Your task to perform on an android device: open app "Messenger Lite" (install if not already installed) Image 0: 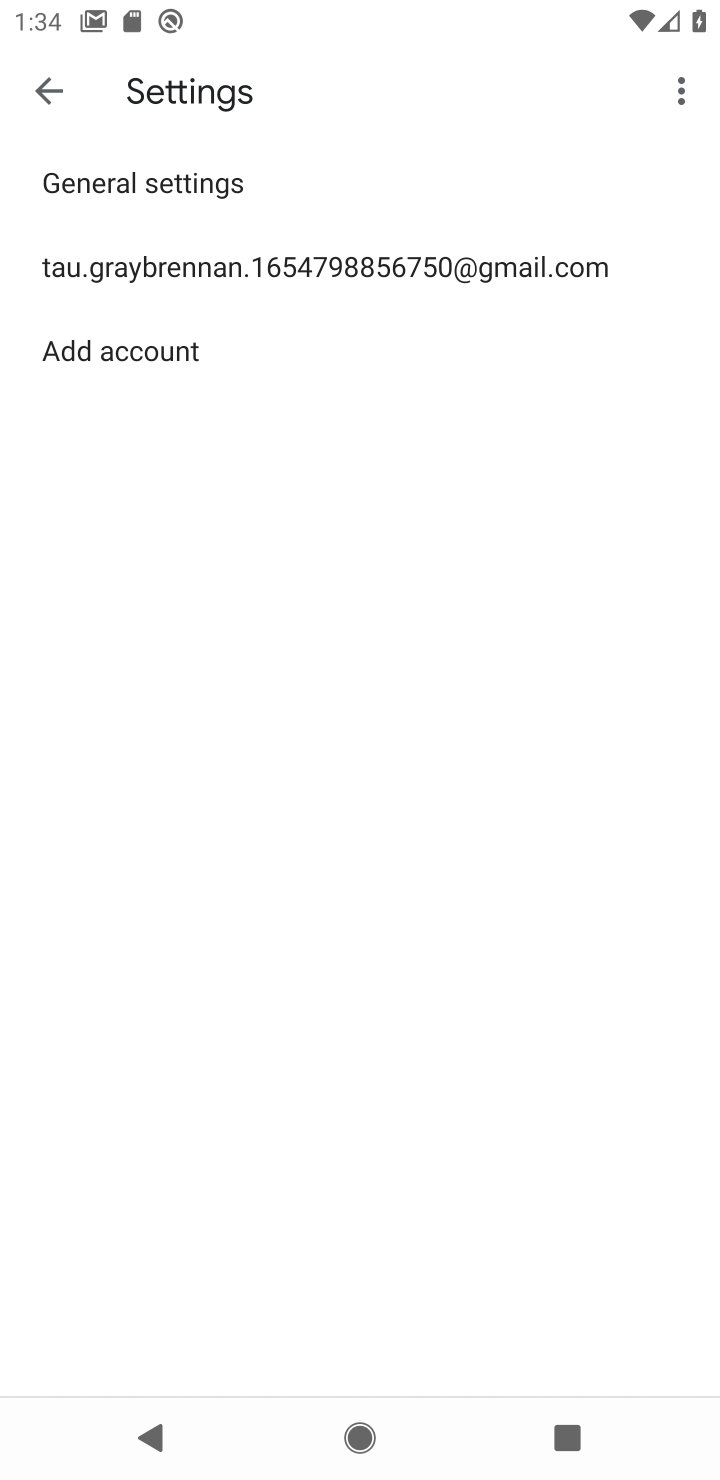
Step 0: press home button
Your task to perform on an android device: open app "Messenger Lite" (install if not already installed) Image 1: 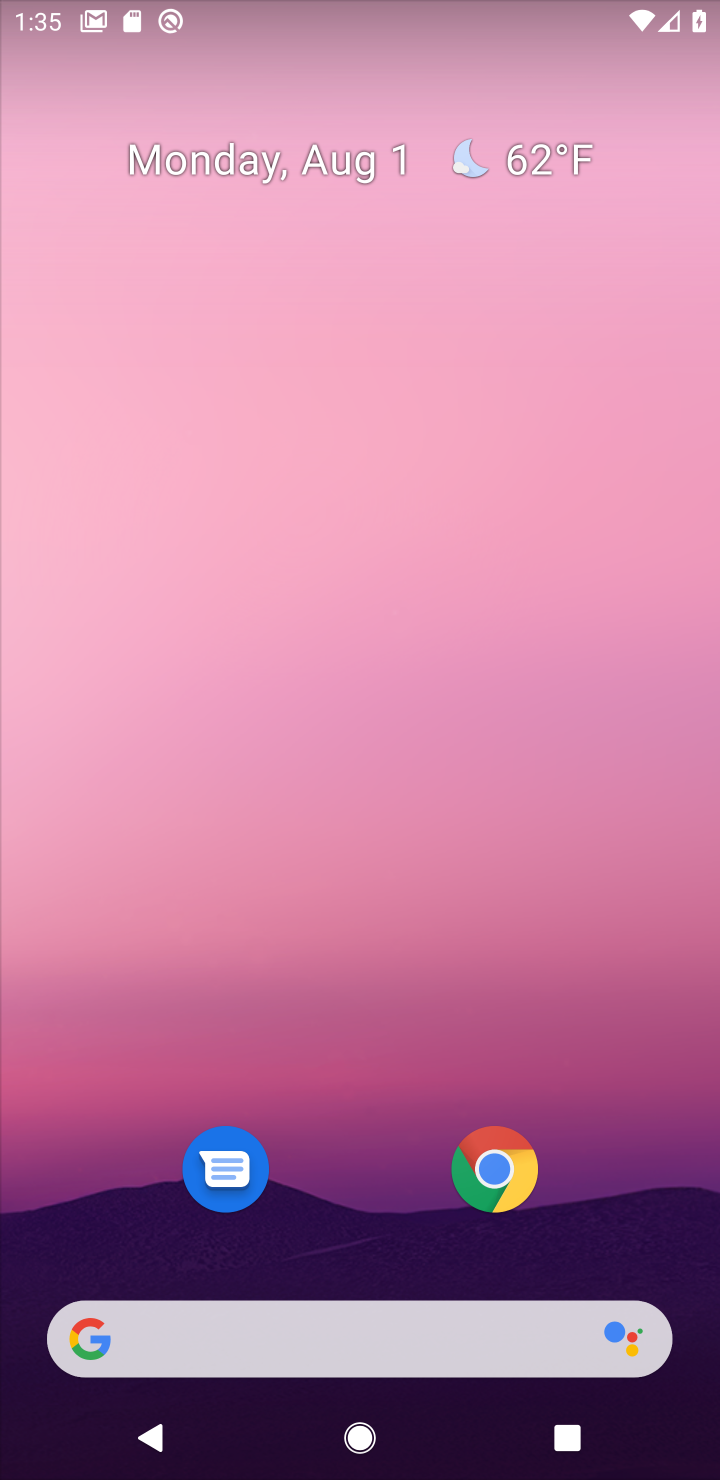
Step 1: drag from (342, 915) to (349, 196)
Your task to perform on an android device: open app "Messenger Lite" (install if not already installed) Image 2: 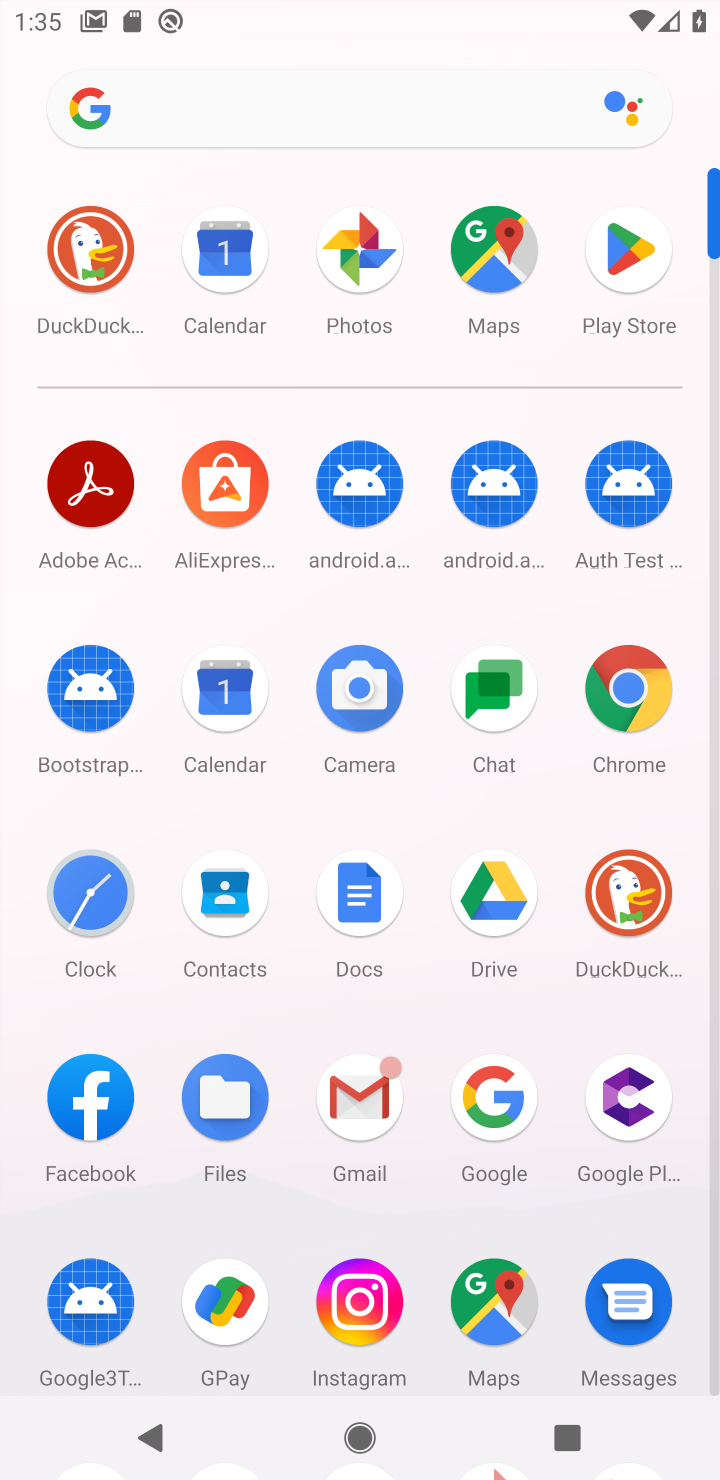
Step 2: click (637, 321)
Your task to perform on an android device: open app "Messenger Lite" (install if not already installed) Image 3: 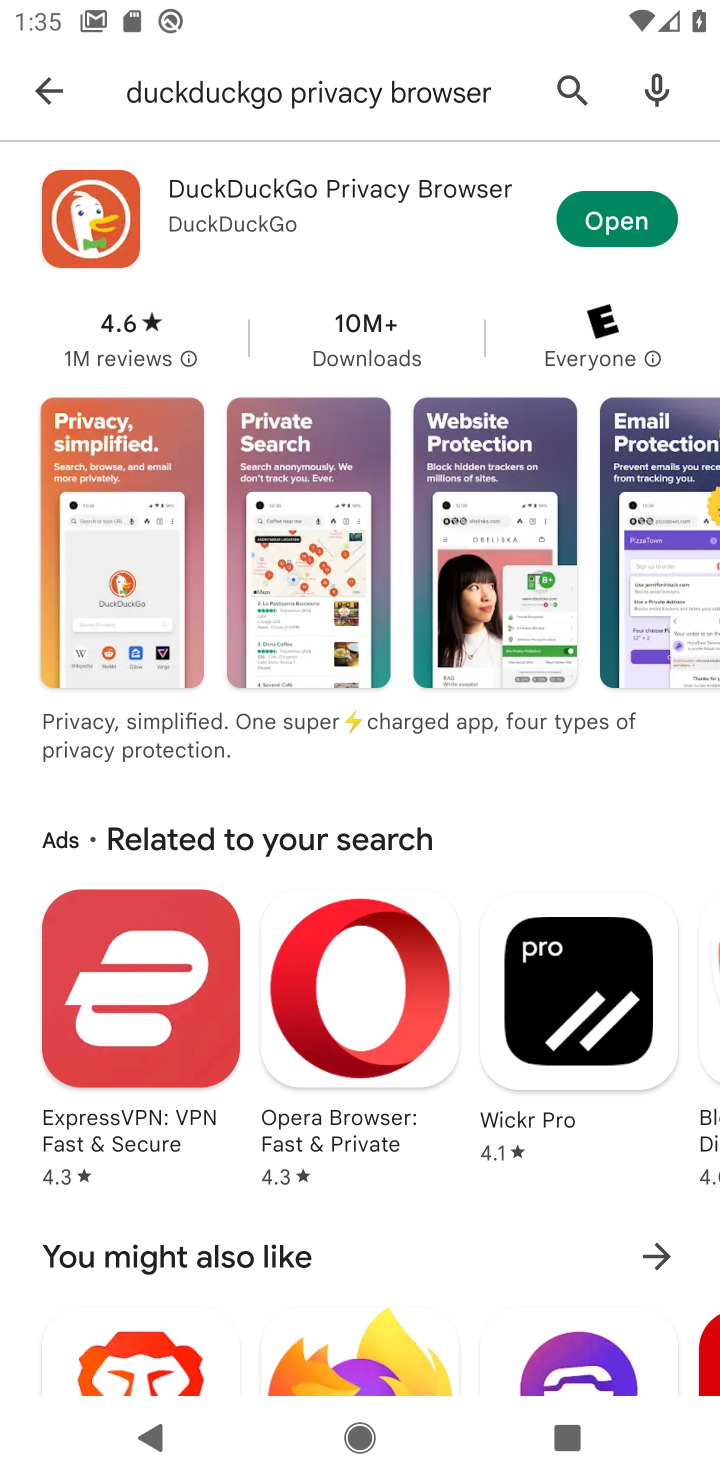
Step 3: click (27, 79)
Your task to perform on an android device: open app "Messenger Lite" (install if not already installed) Image 4: 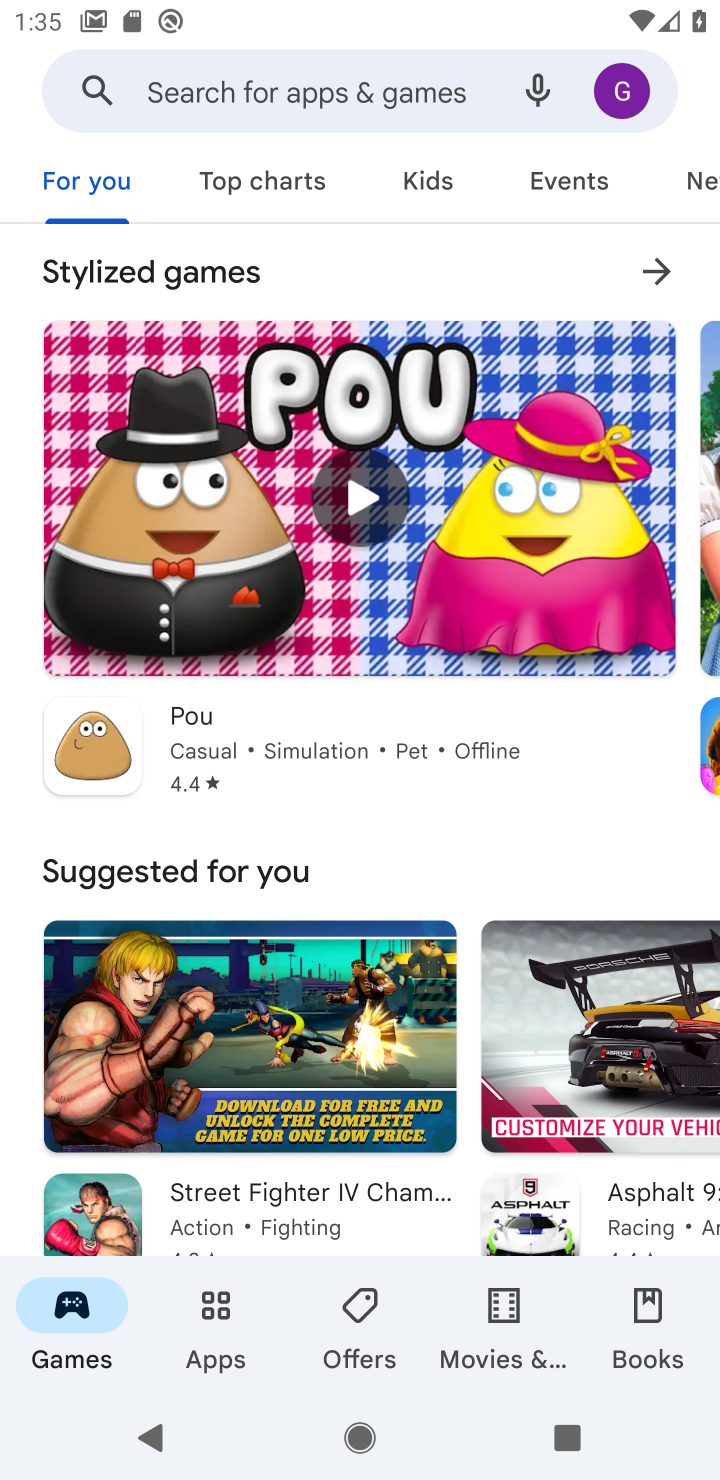
Step 4: click (341, 104)
Your task to perform on an android device: open app "Messenger Lite" (install if not already installed) Image 5: 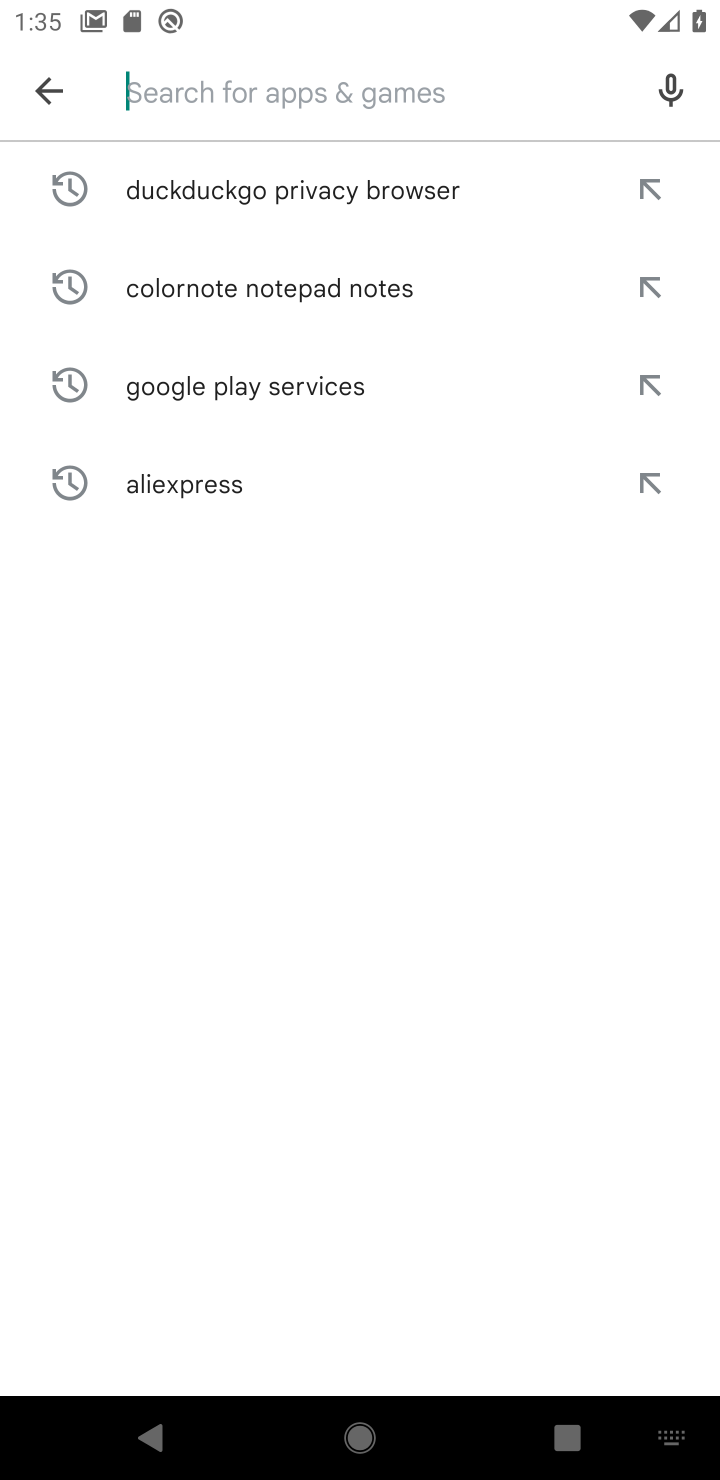
Step 5: type "Messenger Lite"
Your task to perform on an android device: open app "Messenger Lite" (install if not already installed) Image 6: 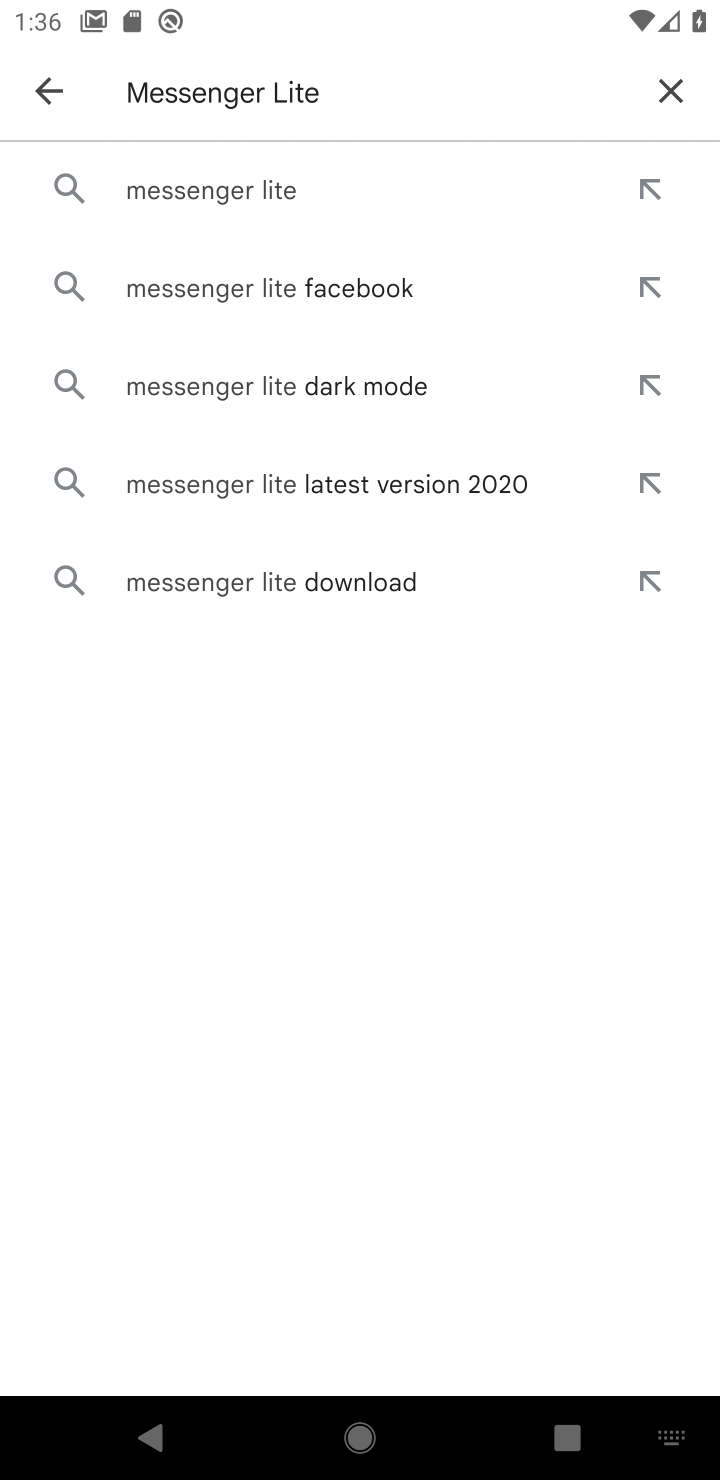
Step 6: click (235, 166)
Your task to perform on an android device: open app "Messenger Lite" (install if not already installed) Image 7: 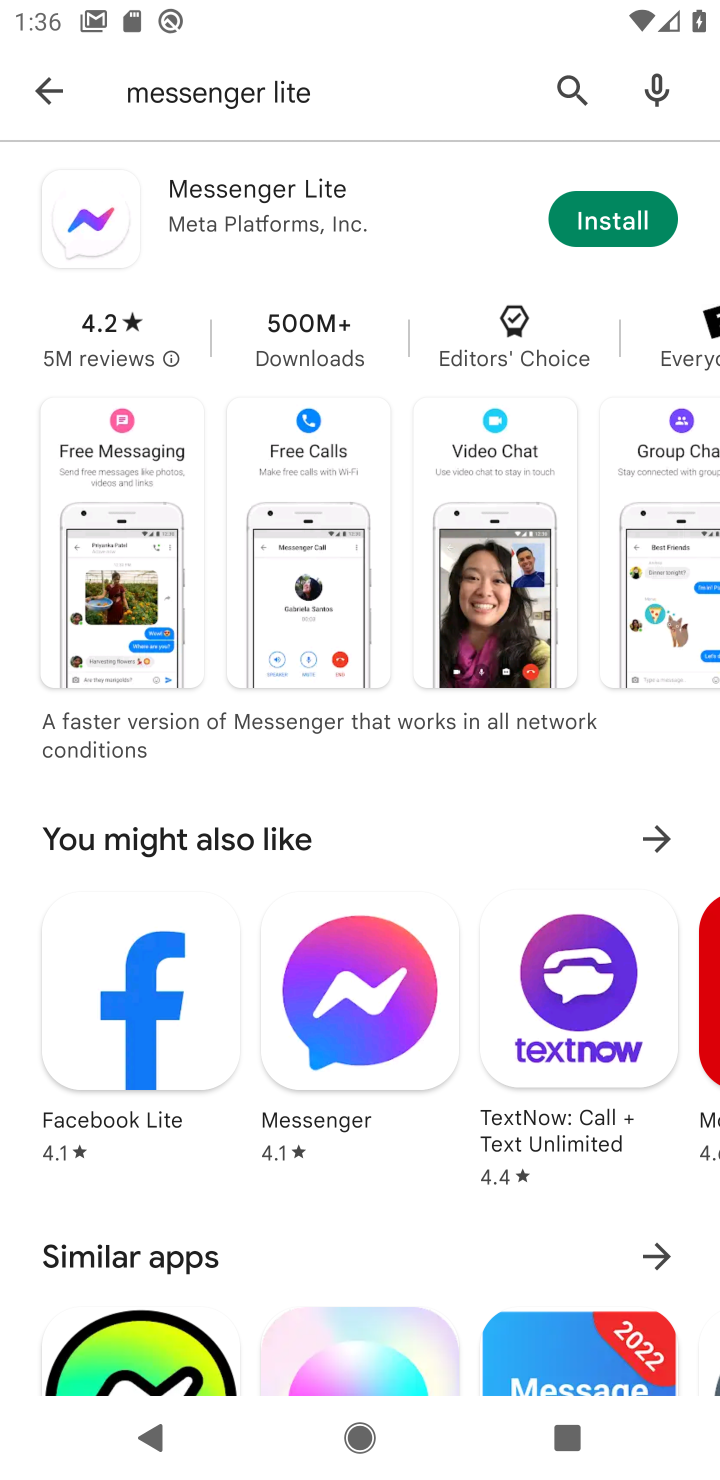
Step 7: click (619, 232)
Your task to perform on an android device: open app "Messenger Lite" (install if not already installed) Image 8: 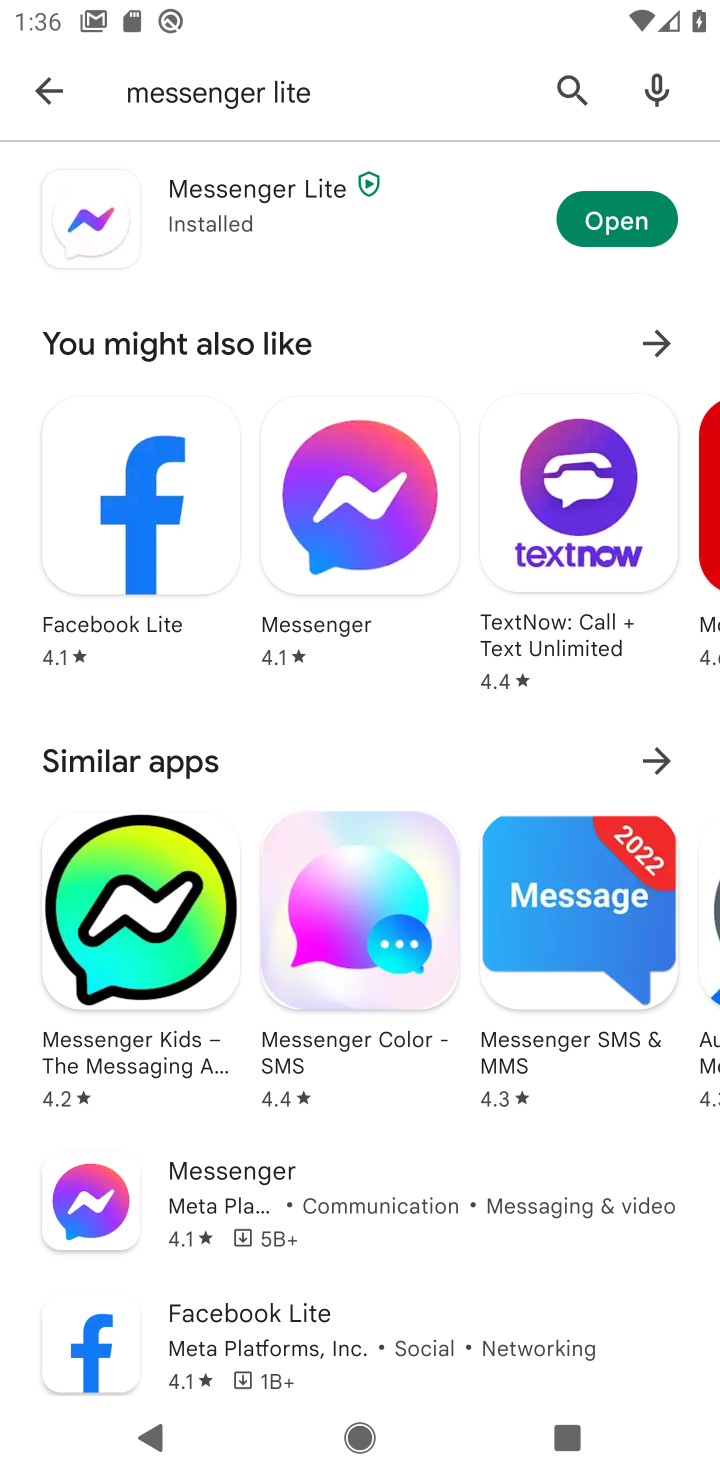
Step 8: click (582, 223)
Your task to perform on an android device: open app "Messenger Lite" (install if not already installed) Image 9: 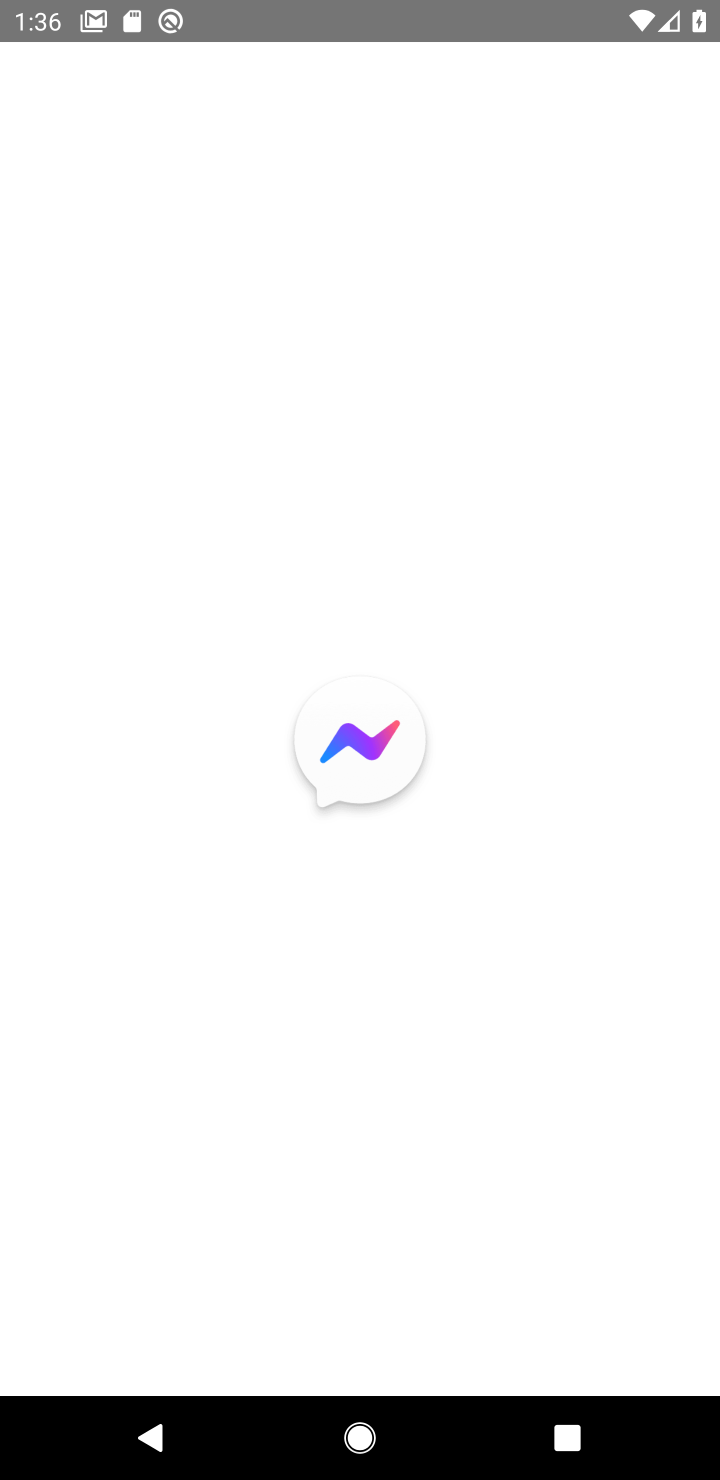
Step 9: task complete